Your task to perform on an android device: change alarm snooze length Image 0: 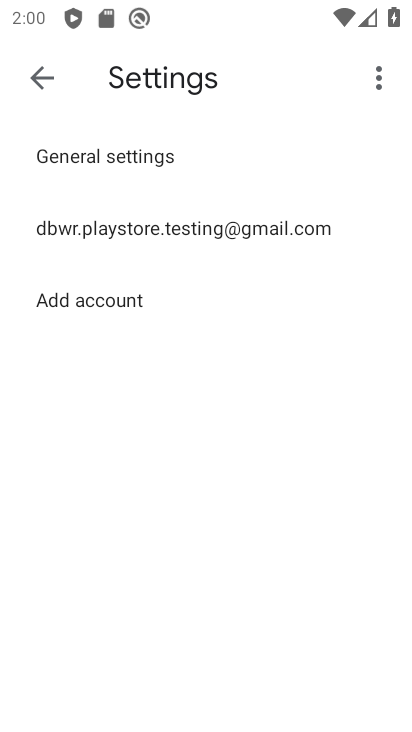
Step 0: press back button
Your task to perform on an android device: change alarm snooze length Image 1: 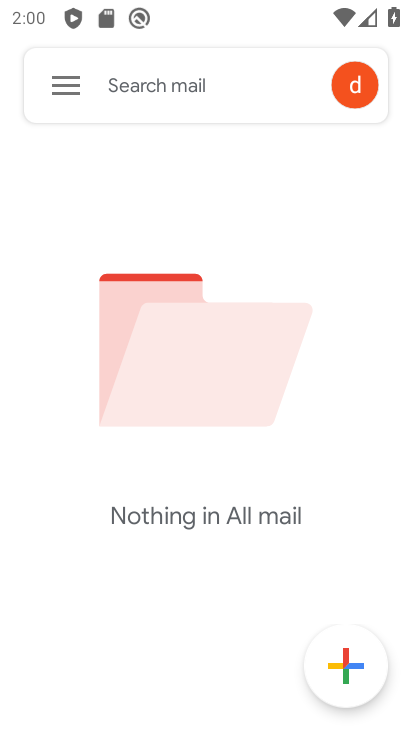
Step 1: press back button
Your task to perform on an android device: change alarm snooze length Image 2: 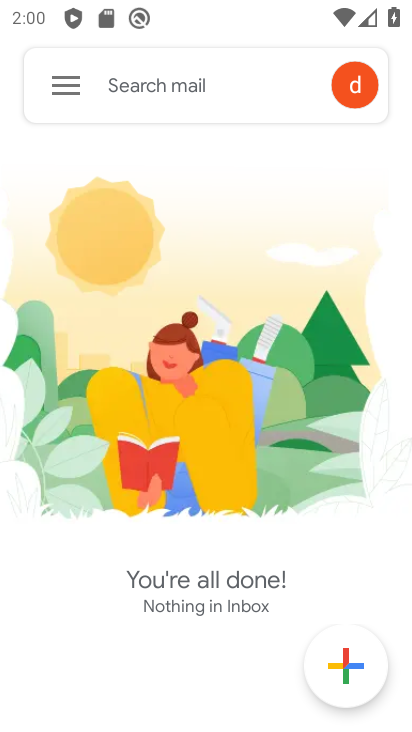
Step 2: press back button
Your task to perform on an android device: change alarm snooze length Image 3: 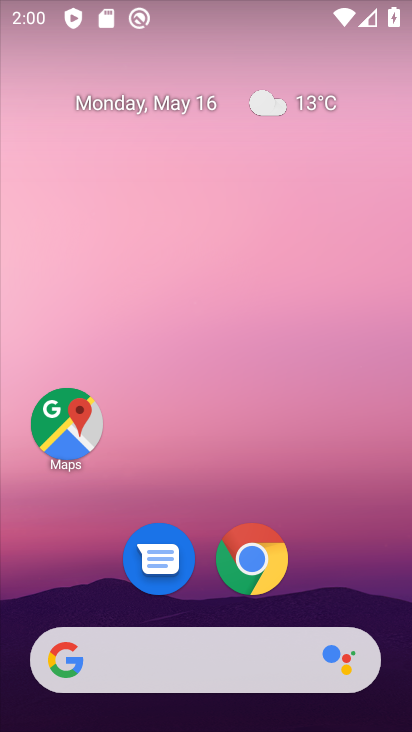
Step 3: drag from (190, 501) to (289, 9)
Your task to perform on an android device: change alarm snooze length Image 4: 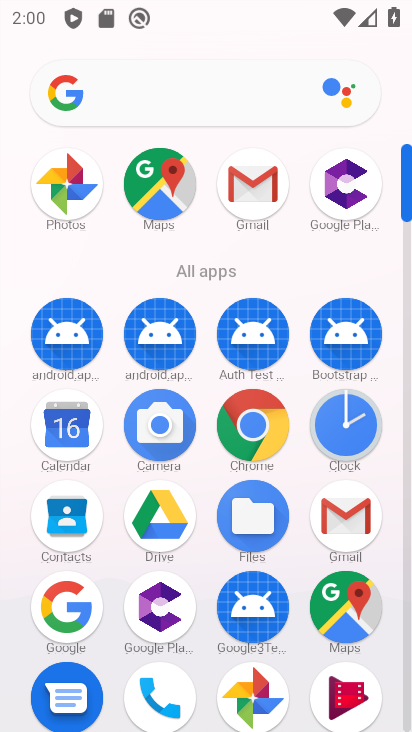
Step 4: click (353, 417)
Your task to perform on an android device: change alarm snooze length Image 5: 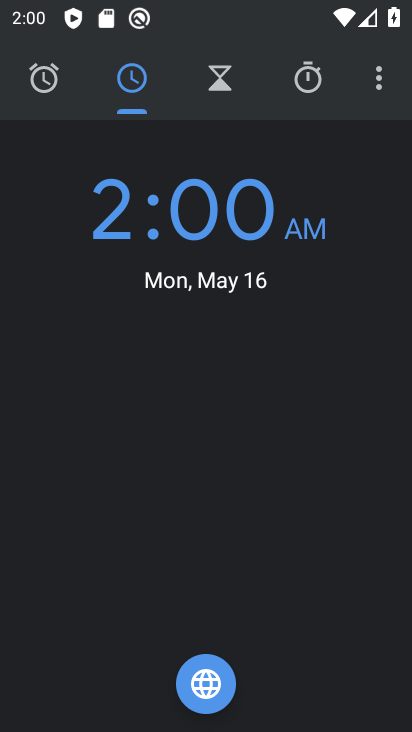
Step 5: click (371, 72)
Your task to perform on an android device: change alarm snooze length Image 6: 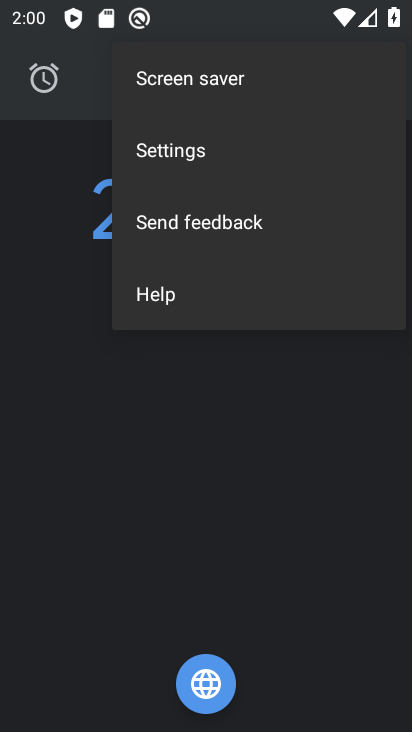
Step 6: click (227, 151)
Your task to perform on an android device: change alarm snooze length Image 7: 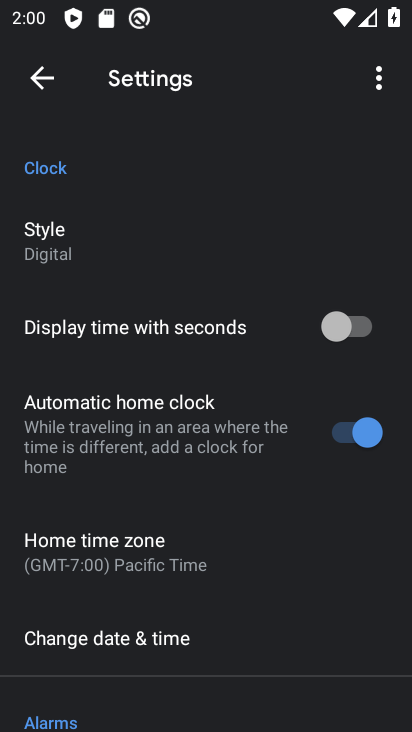
Step 7: drag from (146, 664) to (237, 206)
Your task to perform on an android device: change alarm snooze length Image 8: 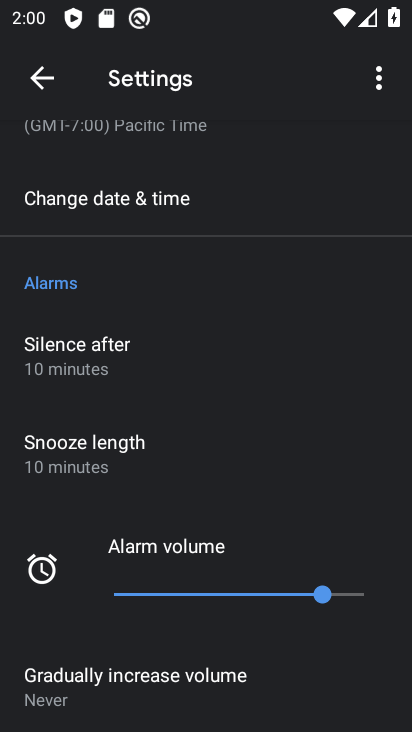
Step 8: click (58, 451)
Your task to perform on an android device: change alarm snooze length Image 9: 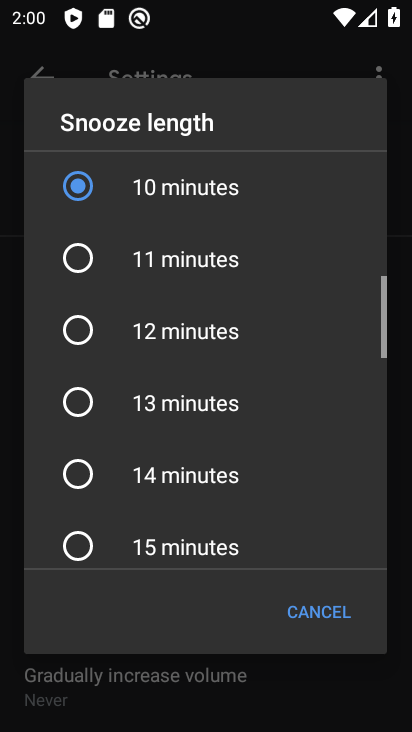
Step 9: click (69, 254)
Your task to perform on an android device: change alarm snooze length Image 10: 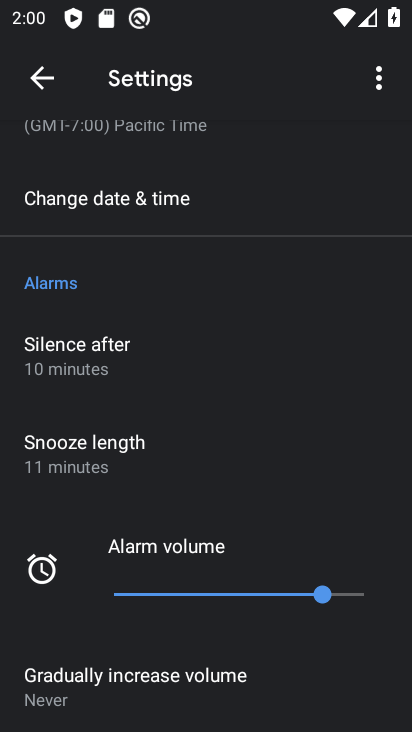
Step 10: task complete